Your task to perform on an android device: toggle priority inbox in the gmail app Image 0: 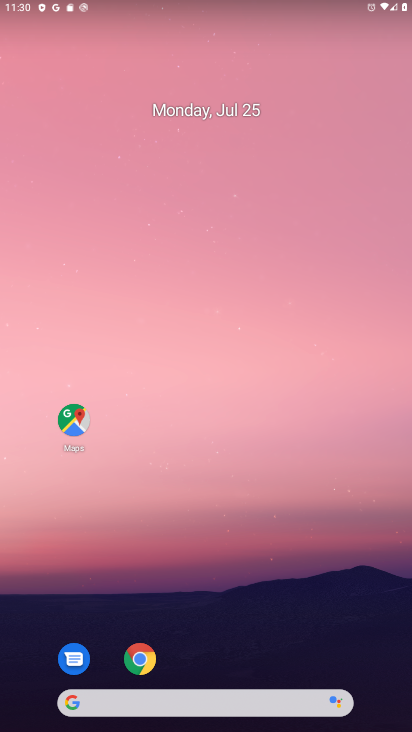
Step 0: drag from (289, 616) to (250, 230)
Your task to perform on an android device: toggle priority inbox in the gmail app Image 1: 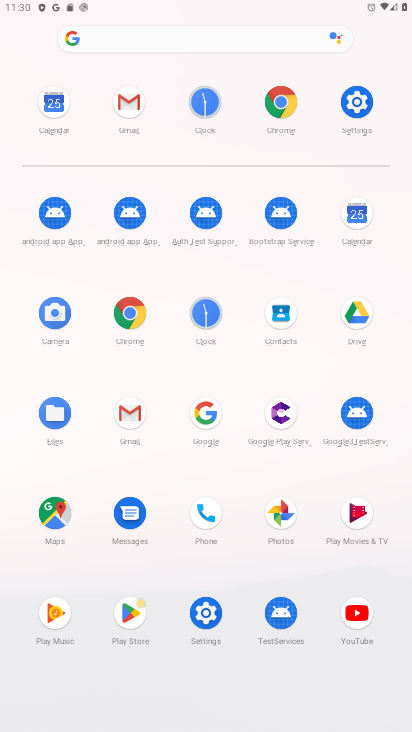
Step 1: click (128, 414)
Your task to perform on an android device: toggle priority inbox in the gmail app Image 2: 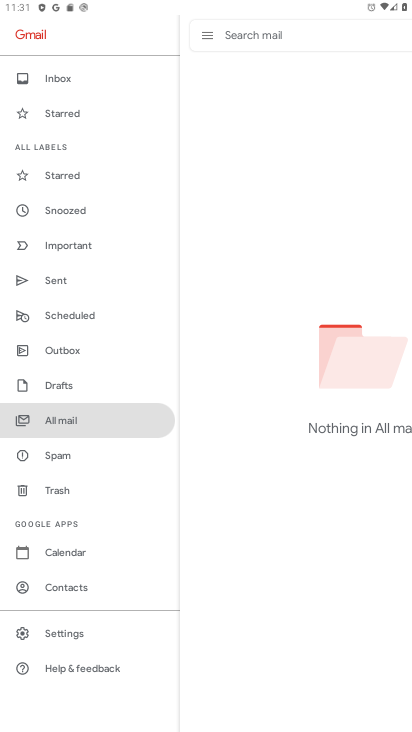
Step 2: click (63, 629)
Your task to perform on an android device: toggle priority inbox in the gmail app Image 3: 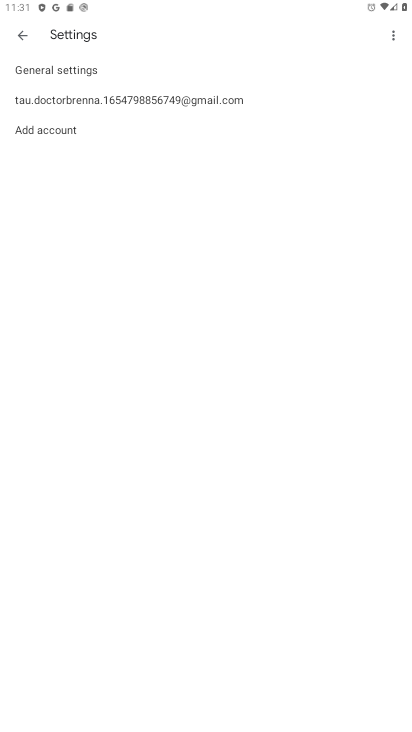
Step 3: click (57, 94)
Your task to perform on an android device: toggle priority inbox in the gmail app Image 4: 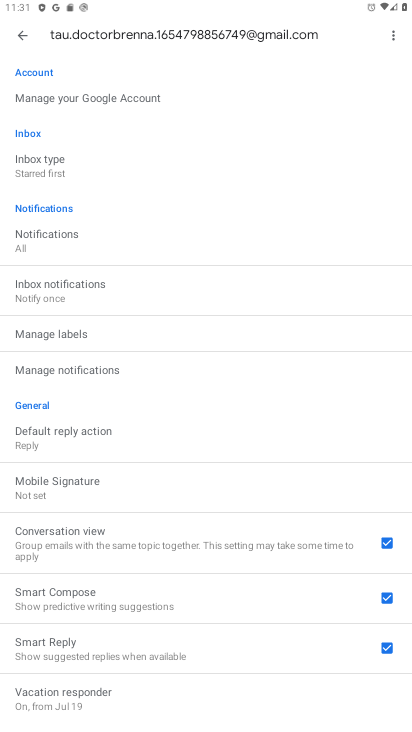
Step 4: click (39, 160)
Your task to perform on an android device: toggle priority inbox in the gmail app Image 5: 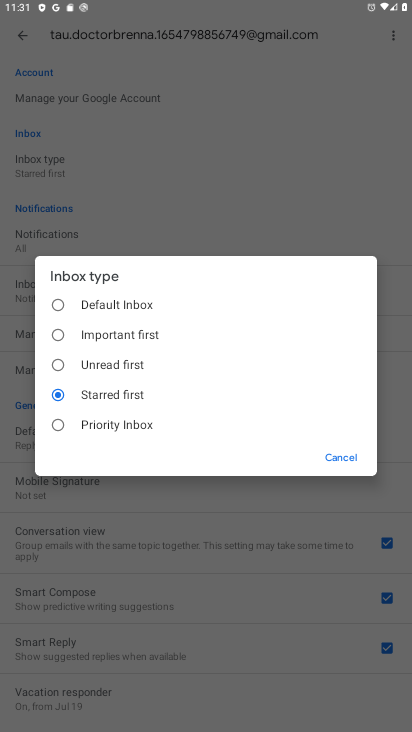
Step 5: click (58, 423)
Your task to perform on an android device: toggle priority inbox in the gmail app Image 6: 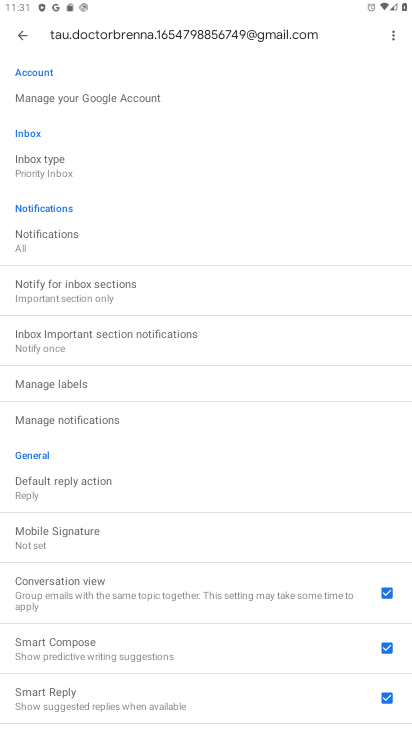
Step 6: task complete